Your task to perform on an android device: Open battery settings Image 0: 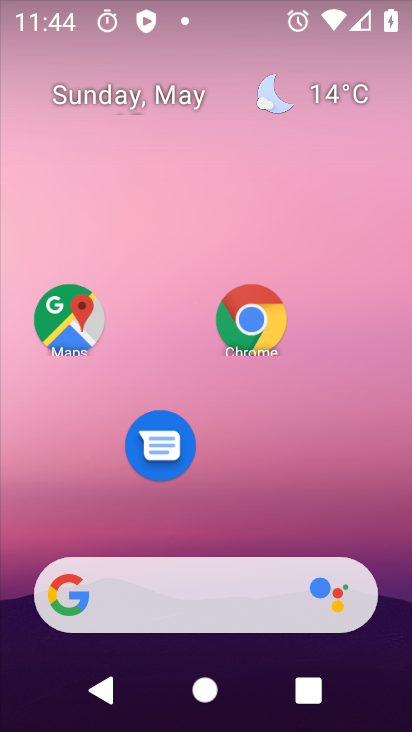
Step 0: press home button
Your task to perform on an android device: Open battery settings Image 1: 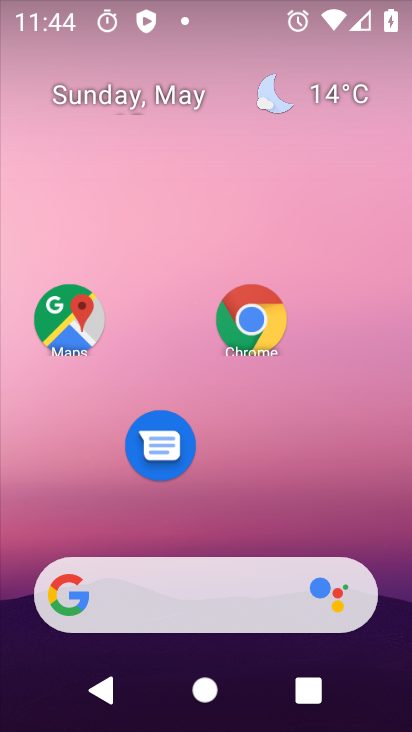
Step 1: drag from (197, 597) to (291, 260)
Your task to perform on an android device: Open battery settings Image 2: 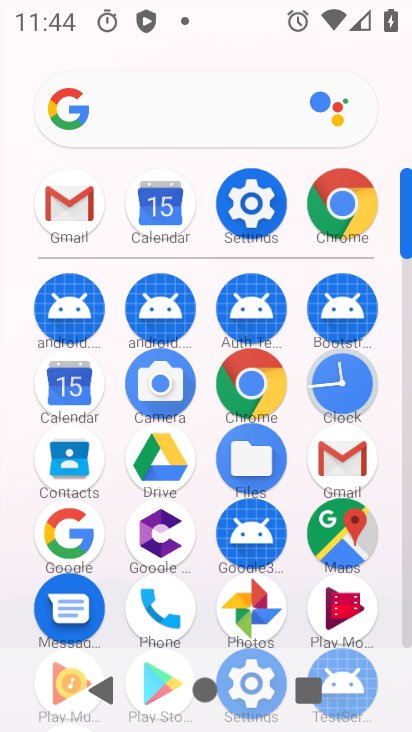
Step 2: click (258, 217)
Your task to perform on an android device: Open battery settings Image 3: 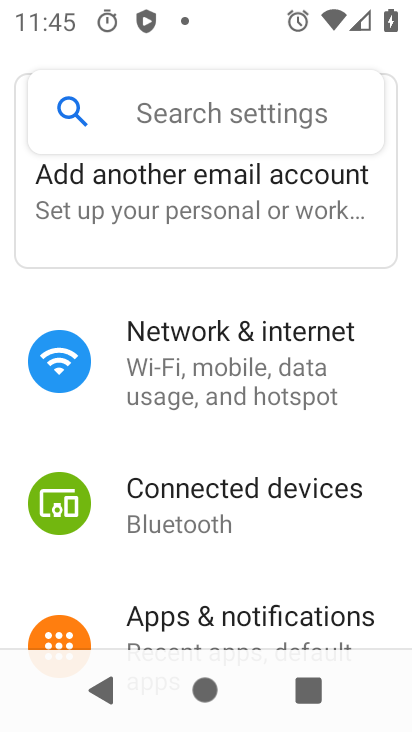
Step 3: drag from (205, 578) to (351, 188)
Your task to perform on an android device: Open battery settings Image 4: 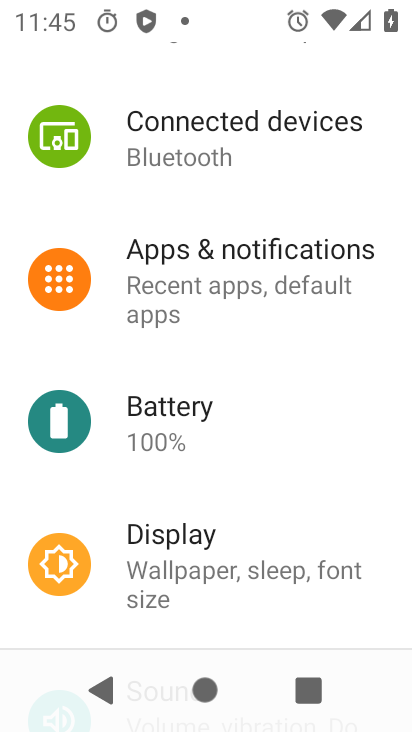
Step 4: click (195, 416)
Your task to perform on an android device: Open battery settings Image 5: 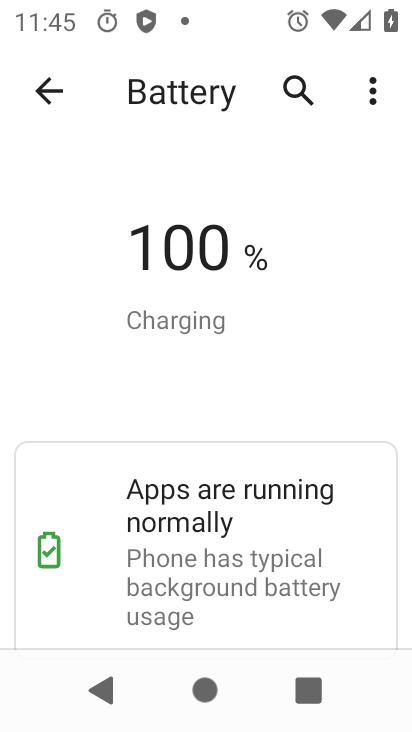
Step 5: task complete